Your task to perform on an android device: turn vacation reply on in the gmail app Image 0: 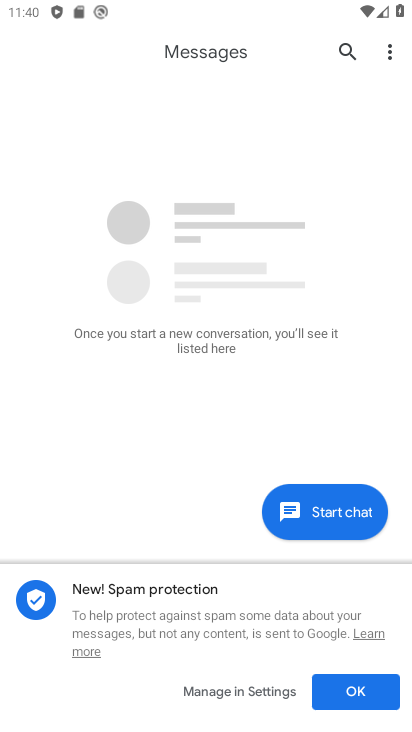
Step 0: press home button
Your task to perform on an android device: turn vacation reply on in the gmail app Image 1: 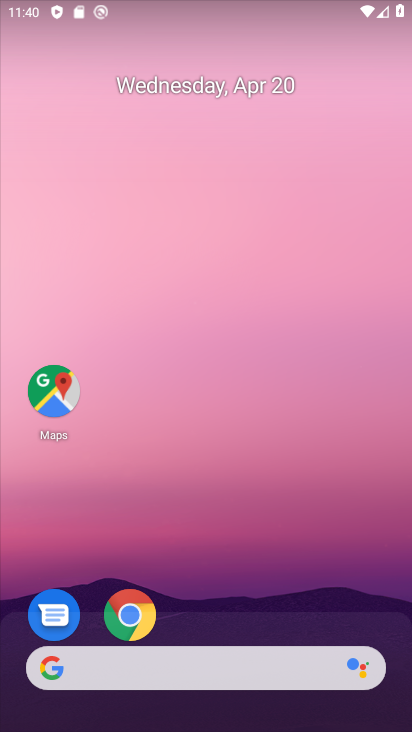
Step 1: drag from (191, 626) to (375, 278)
Your task to perform on an android device: turn vacation reply on in the gmail app Image 2: 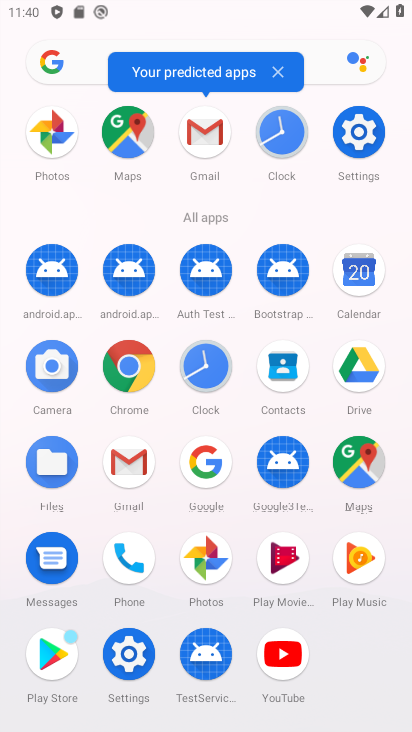
Step 2: click (138, 472)
Your task to perform on an android device: turn vacation reply on in the gmail app Image 3: 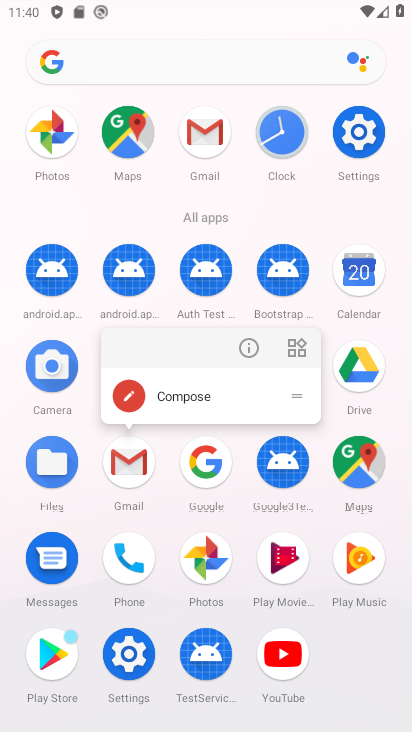
Step 3: click (138, 472)
Your task to perform on an android device: turn vacation reply on in the gmail app Image 4: 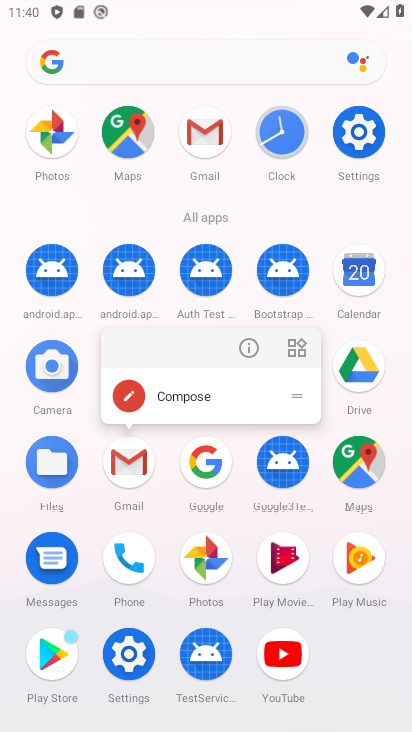
Step 4: click (138, 472)
Your task to perform on an android device: turn vacation reply on in the gmail app Image 5: 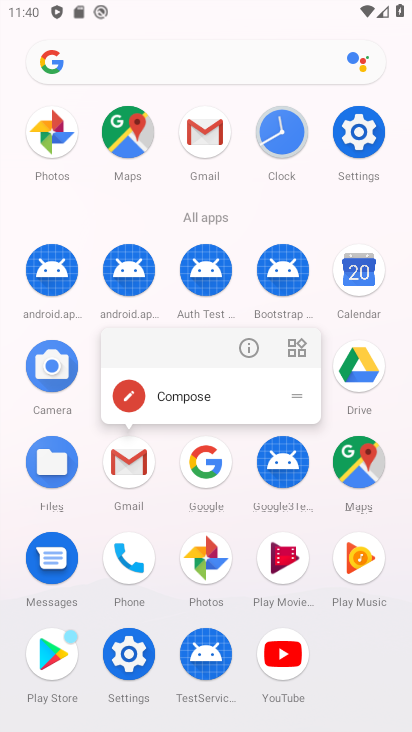
Step 5: click (138, 472)
Your task to perform on an android device: turn vacation reply on in the gmail app Image 6: 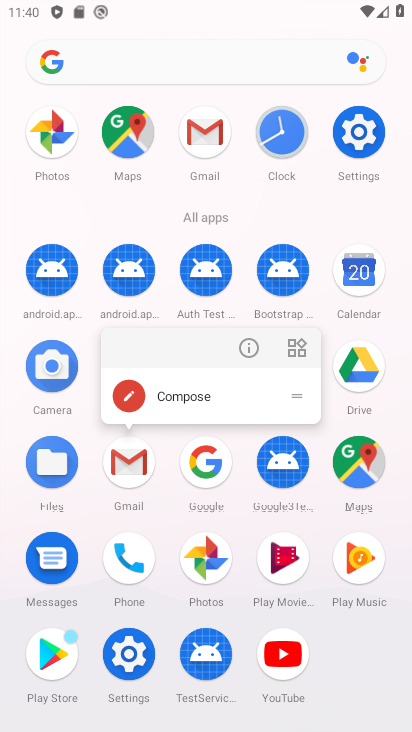
Step 6: click (138, 472)
Your task to perform on an android device: turn vacation reply on in the gmail app Image 7: 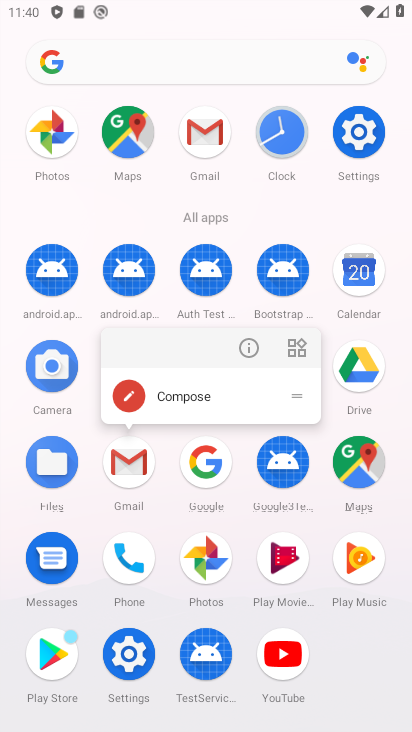
Step 7: click (138, 472)
Your task to perform on an android device: turn vacation reply on in the gmail app Image 8: 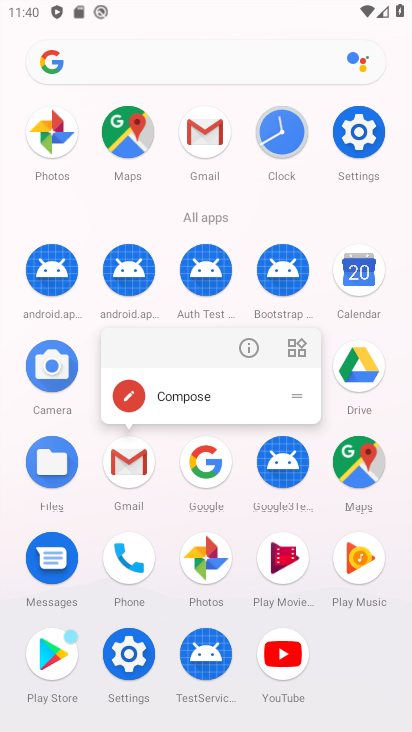
Step 8: click (138, 472)
Your task to perform on an android device: turn vacation reply on in the gmail app Image 9: 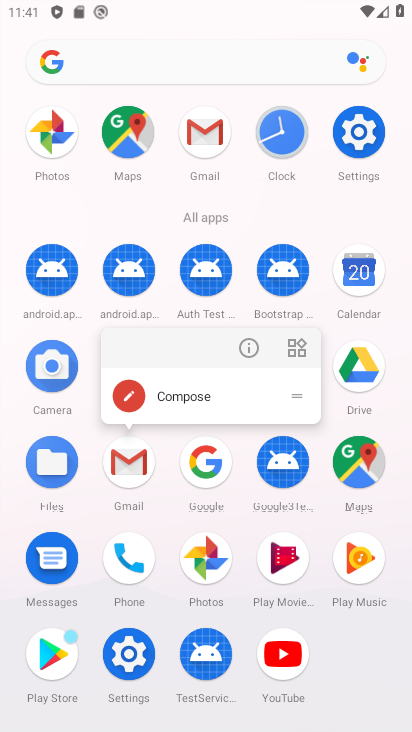
Step 9: click (130, 475)
Your task to perform on an android device: turn vacation reply on in the gmail app Image 10: 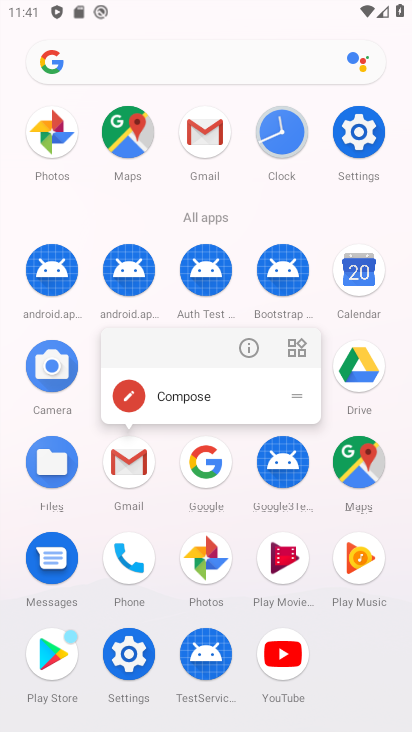
Step 10: click (128, 480)
Your task to perform on an android device: turn vacation reply on in the gmail app Image 11: 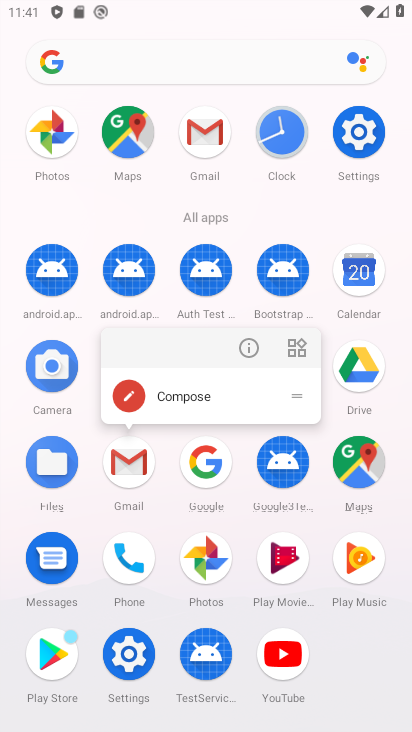
Step 11: click (128, 480)
Your task to perform on an android device: turn vacation reply on in the gmail app Image 12: 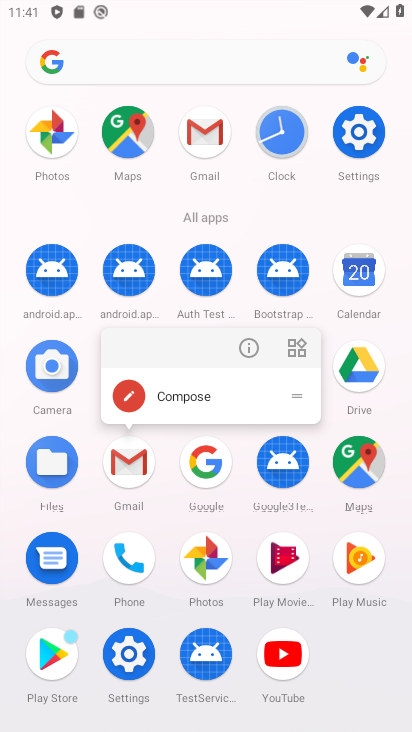
Step 12: click (128, 480)
Your task to perform on an android device: turn vacation reply on in the gmail app Image 13: 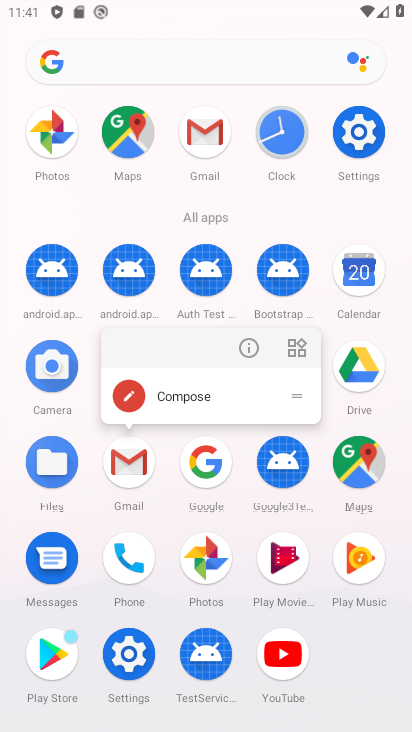
Step 13: click (128, 480)
Your task to perform on an android device: turn vacation reply on in the gmail app Image 14: 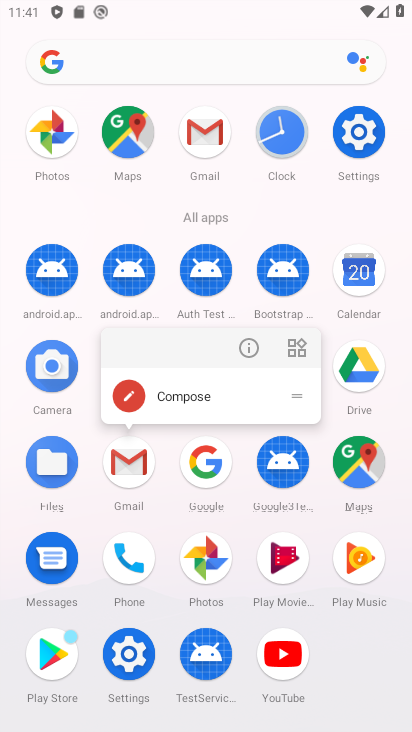
Step 14: click (128, 480)
Your task to perform on an android device: turn vacation reply on in the gmail app Image 15: 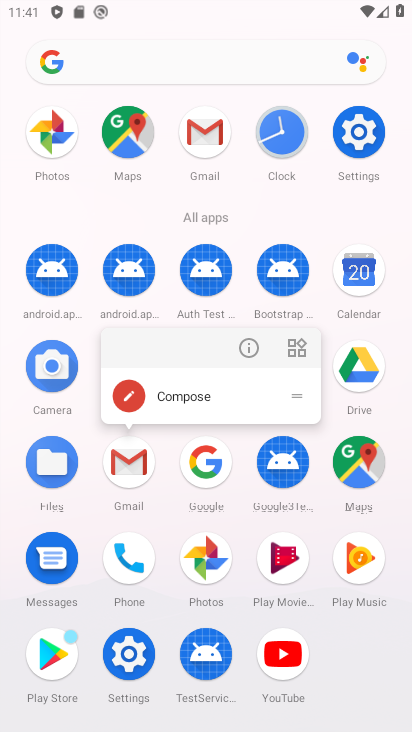
Step 15: click (128, 480)
Your task to perform on an android device: turn vacation reply on in the gmail app Image 16: 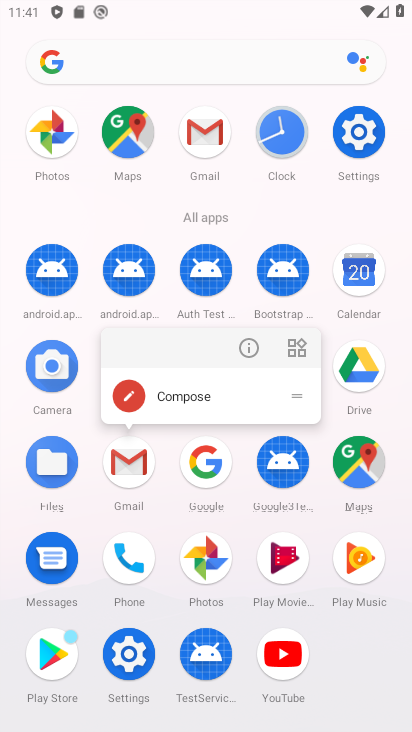
Step 16: click (128, 480)
Your task to perform on an android device: turn vacation reply on in the gmail app Image 17: 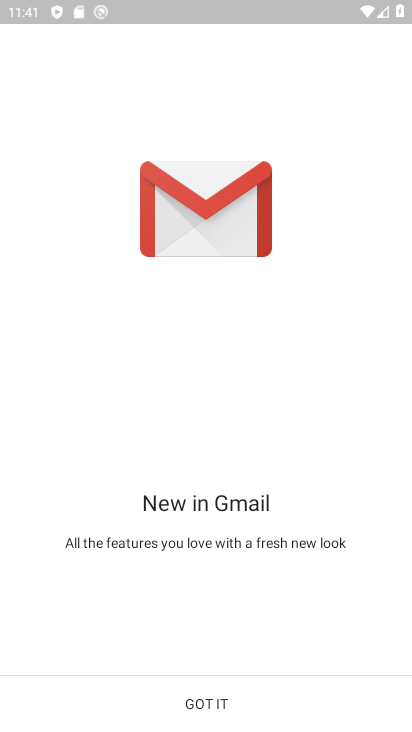
Step 17: click (188, 705)
Your task to perform on an android device: turn vacation reply on in the gmail app Image 18: 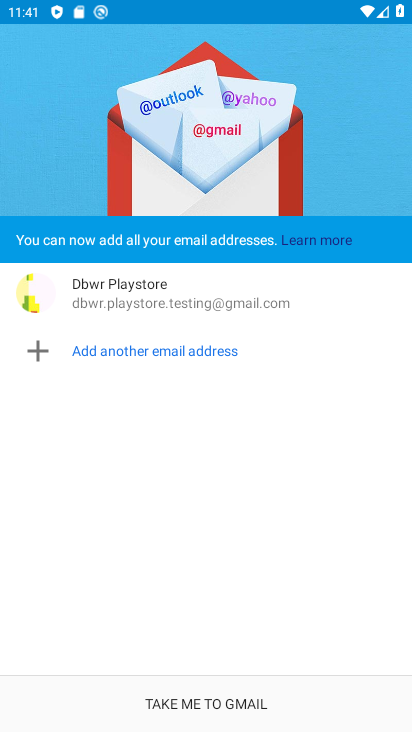
Step 18: click (214, 704)
Your task to perform on an android device: turn vacation reply on in the gmail app Image 19: 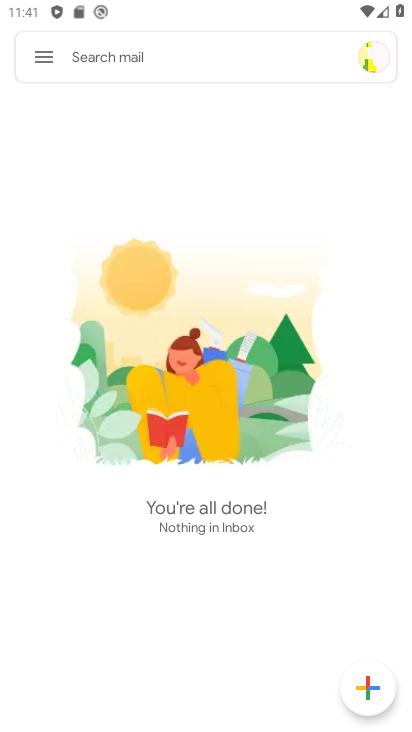
Step 19: click (43, 71)
Your task to perform on an android device: turn vacation reply on in the gmail app Image 20: 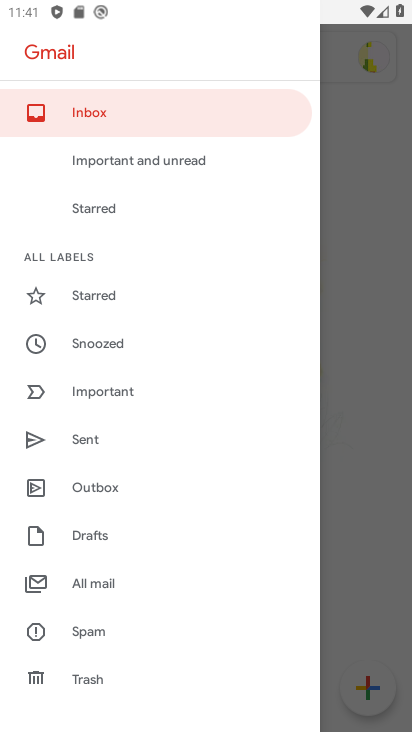
Step 20: click (137, 124)
Your task to perform on an android device: turn vacation reply on in the gmail app Image 21: 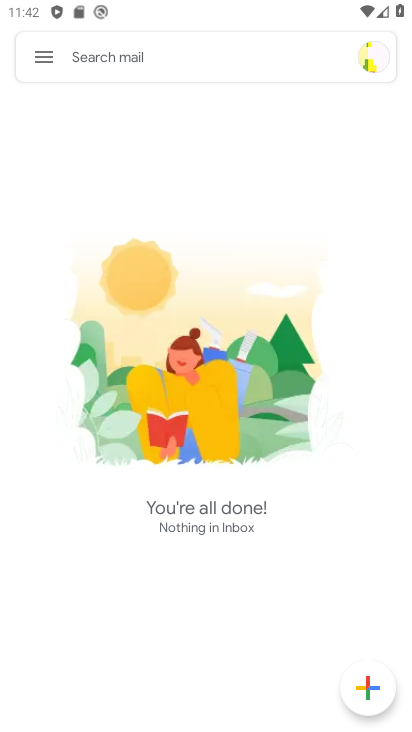
Step 21: click (46, 63)
Your task to perform on an android device: turn vacation reply on in the gmail app Image 22: 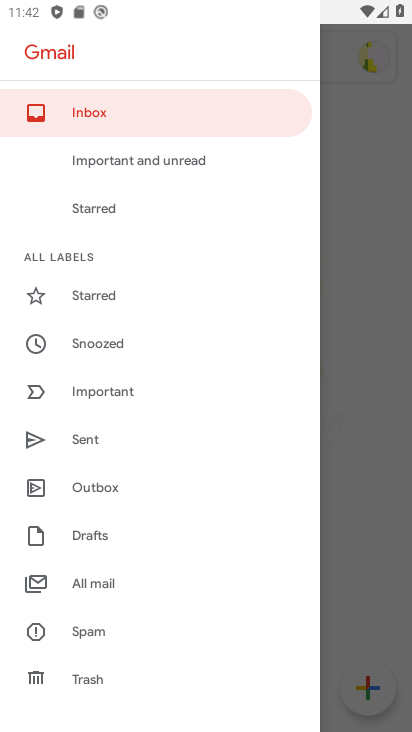
Step 22: drag from (146, 643) to (255, 328)
Your task to perform on an android device: turn vacation reply on in the gmail app Image 23: 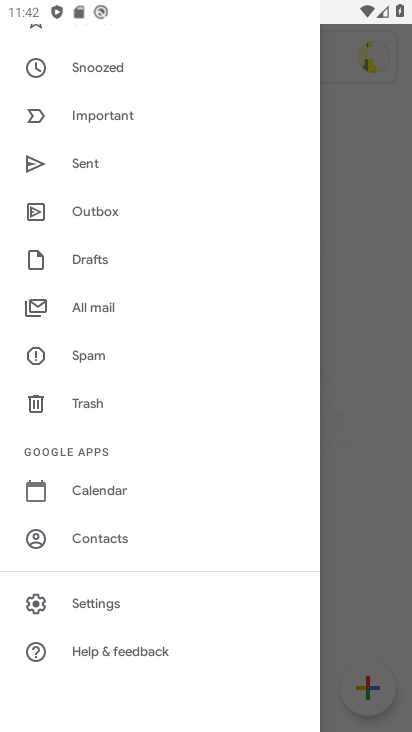
Step 23: click (121, 597)
Your task to perform on an android device: turn vacation reply on in the gmail app Image 24: 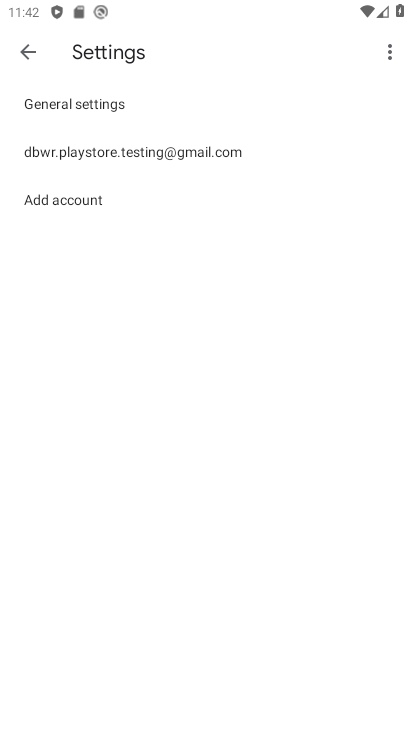
Step 24: click (139, 149)
Your task to perform on an android device: turn vacation reply on in the gmail app Image 25: 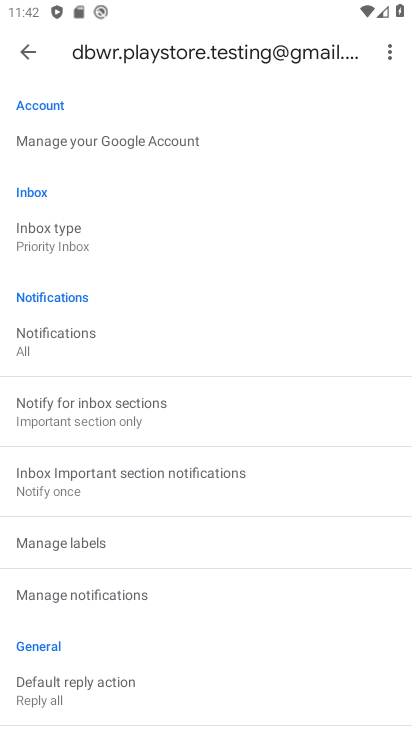
Step 25: drag from (110, 695) to (207, 349)
Your task to perform on an android device: turn vacation reply on in the gmail app Image 26: 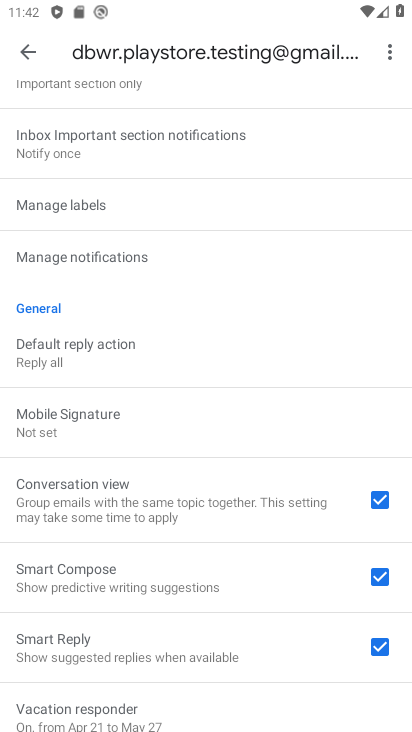
Step 26: drag from (134, 668) to (206, 474)
Your task to perform on an android device: turn vacation reply on in the gmail app Image 27: 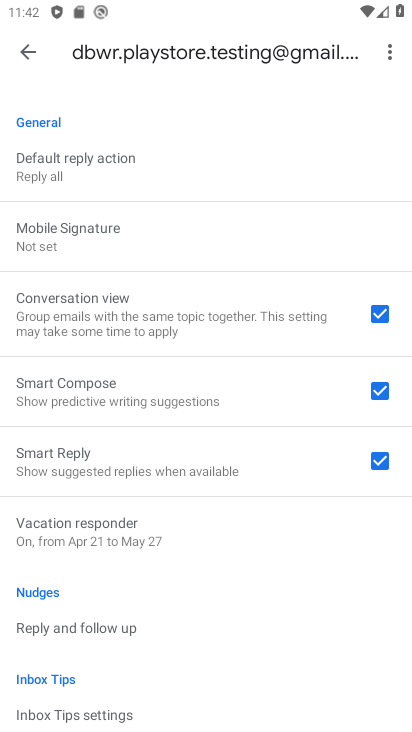
Step 27: click (95, 528)
Your task to perform on an android device: turn vacation reply on in the gmail app Image 28: 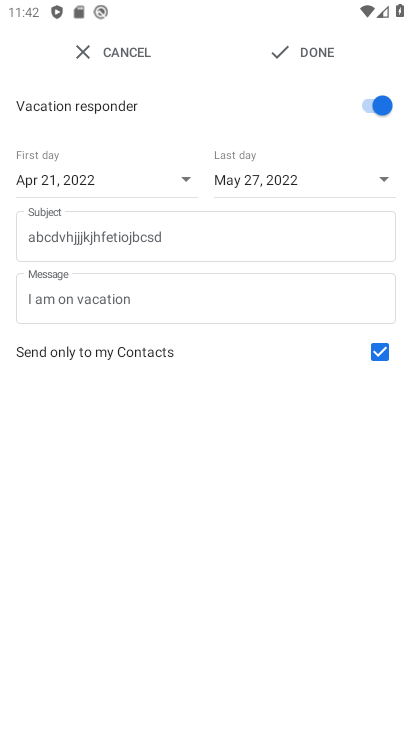
Step 28: task complete